Your task to perform on an android device: Open Yahoo.com Image 0: 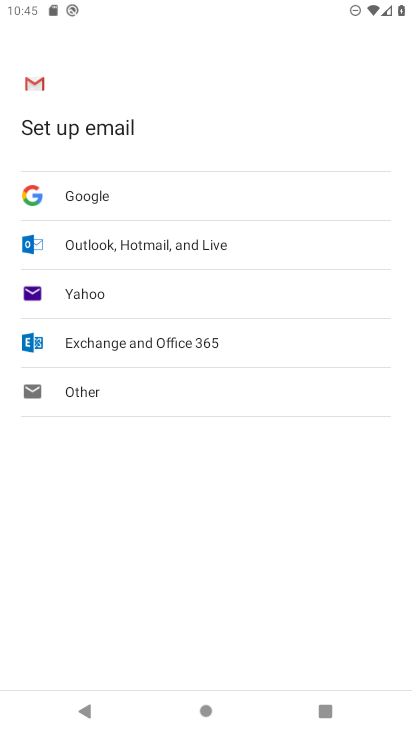
Step 0: press home button
Your task to perform on an android device: Open Yahoo.com Image 1: 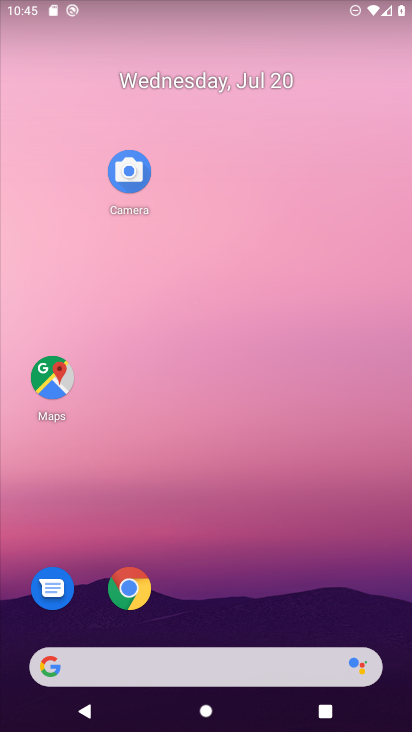
Step 1: click (48, 667)
Your task to perform on an android device: Open Yahoo.com Image 2: 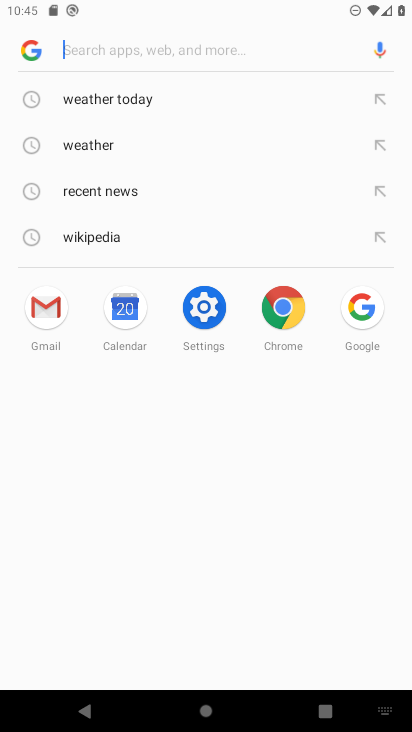
Step 2: type "Yahoo.com"
Your task to perform on an android device: Open Yahoo.com Image 3: 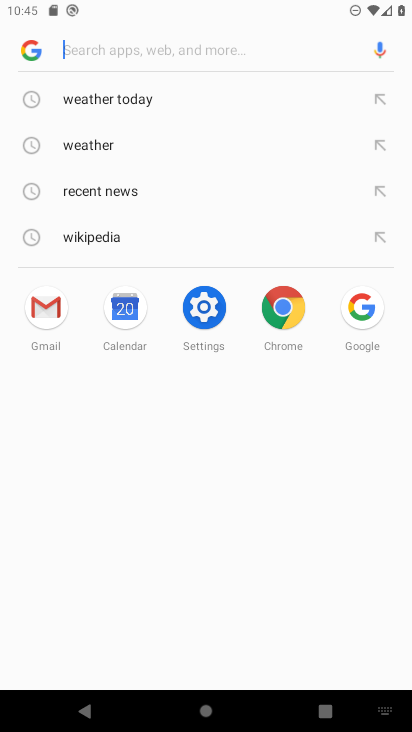
Step 3: click (90, 47)
Your task to perform on an android device: Open Yahoo.com Image 4: 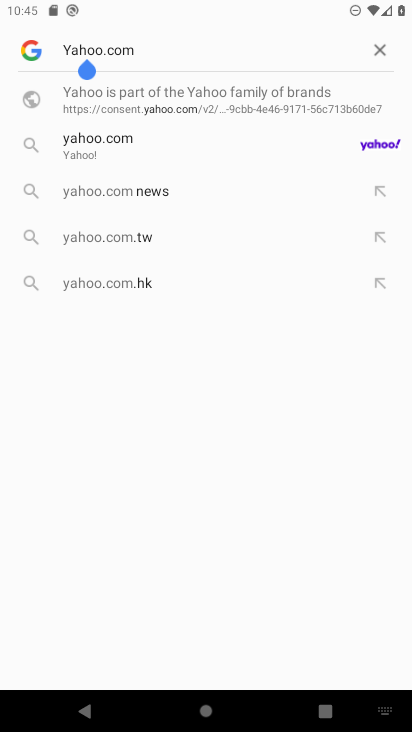
Step 4: press enter
Your task to perform on an android device: Open Yahoo.com Image 5: 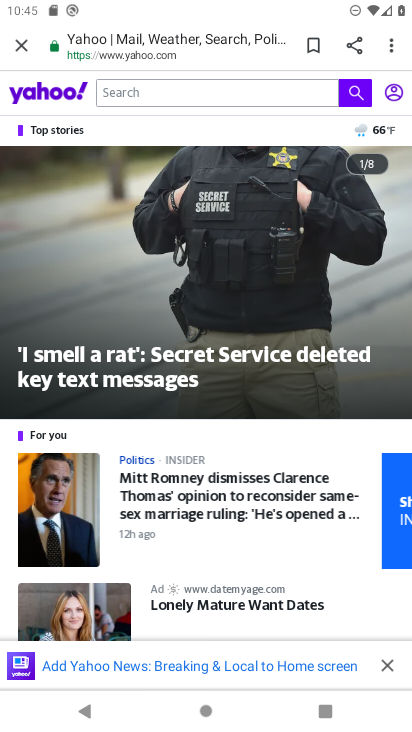
Step 5: task complete